Your task to perform on an android device: Show me recent news Image 0: 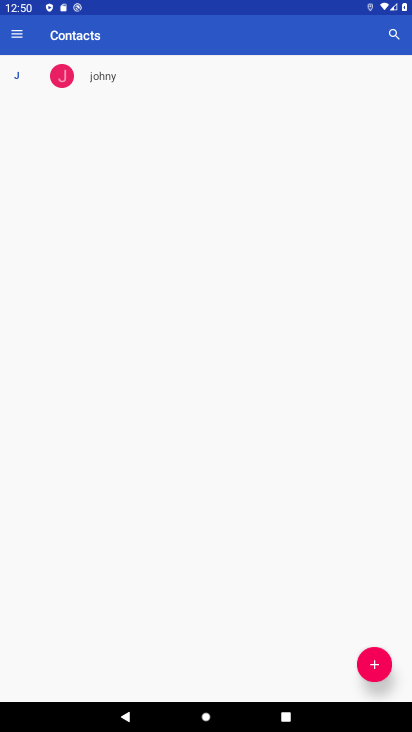
Step 0: press home button
Your task to perform on an android device: Show me recent news Image 1: 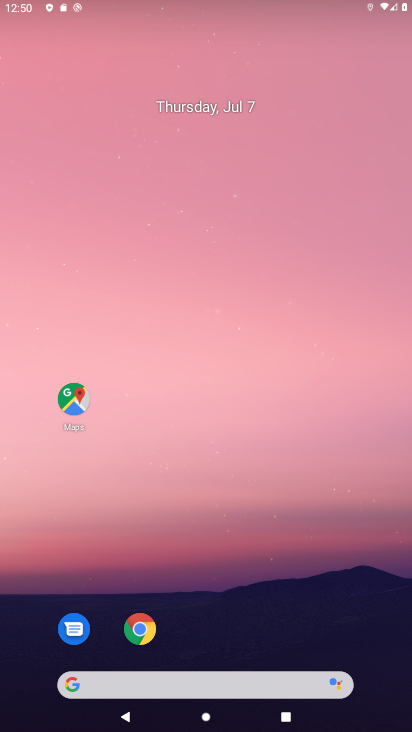
Step 1: drag from (195, 624) to (189, 119)
Your task to perform on an android device: Show me recent news Image 2: 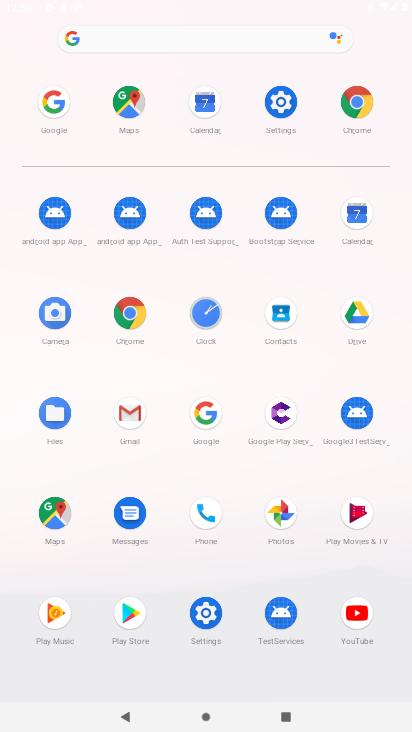
Step 2: click (199, 411)
Your task to perform on an android device: Show me recent news Image 3: 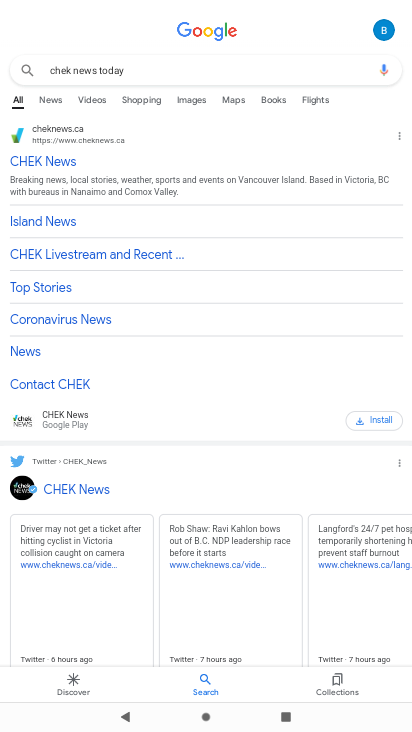
Step 3: click (188, 72)
Your task to perform on an android device: Show me recent news Image 4: 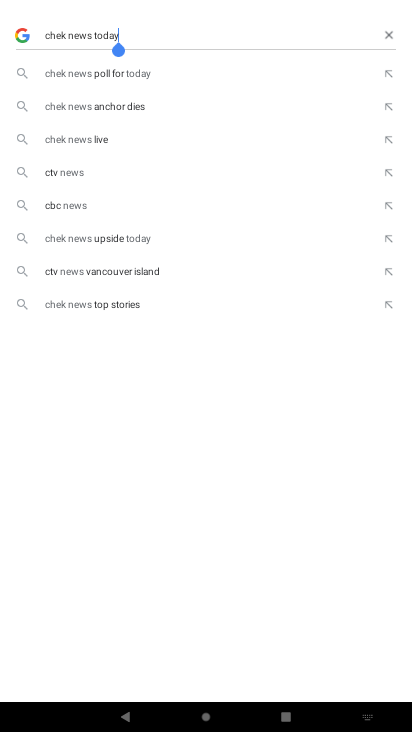
Step 4: click (377, 32)
Your task to perform on an android device: Show me recent news Image 5: 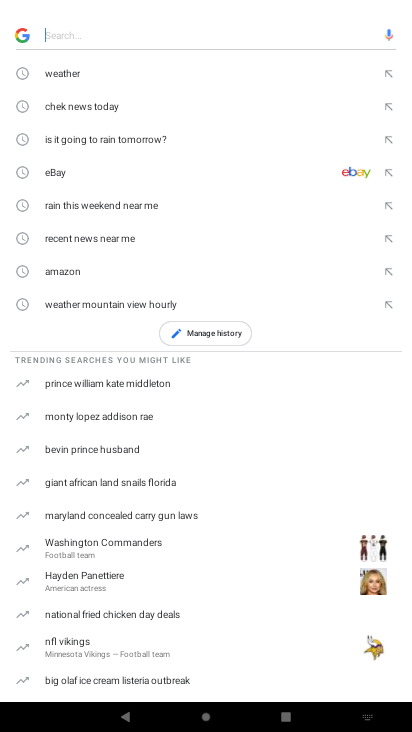
Step 5: click (208, 332)
Your task to perform on an android device: Show me recent news Image 6: 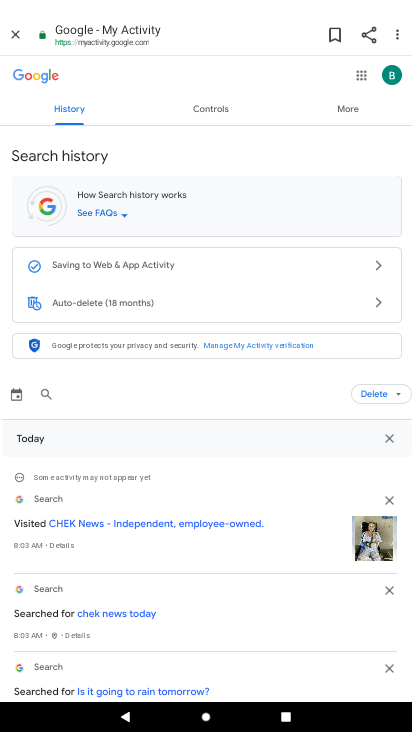
Step 6: click (15, 32)
Your task to perform on an android device: Show me recent news Image 7: 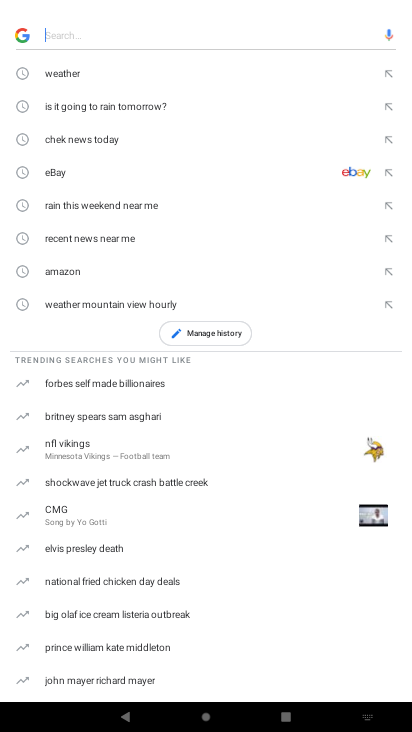
Step 7: type "recent news"
Your task to perform on an android device: Show me recent news Image 8: 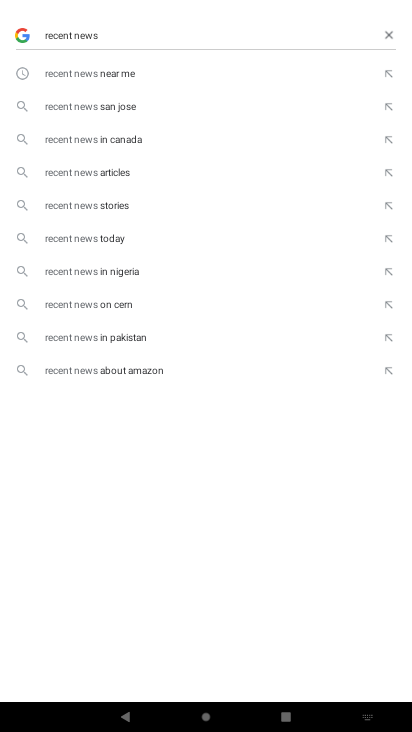
Step 8: task complete